Your task to perform on an android device: Go to ESPN.com Image 0: 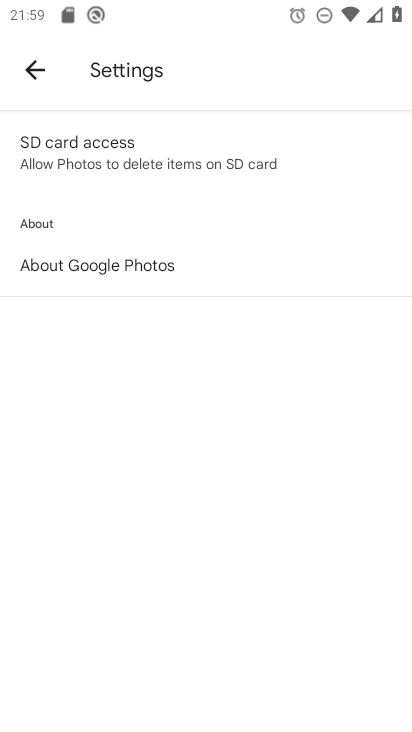
Step 0: press home button
Your task to perform on an android device: Go to ESPN.com Image 1: 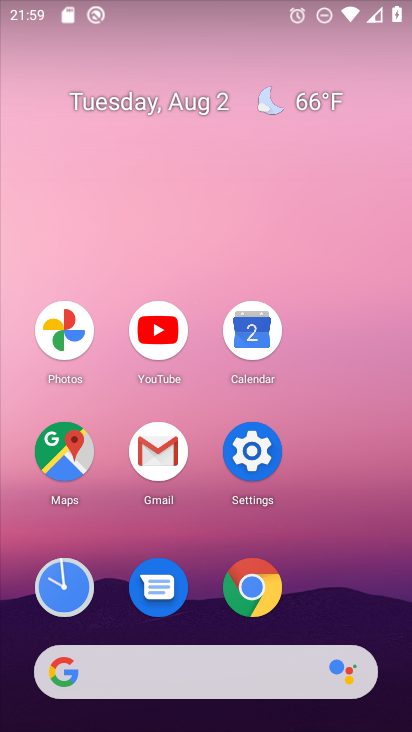
Step 1: click (254, 583)
Your task to perform on an android device: Go to ESPN.com Image 2: 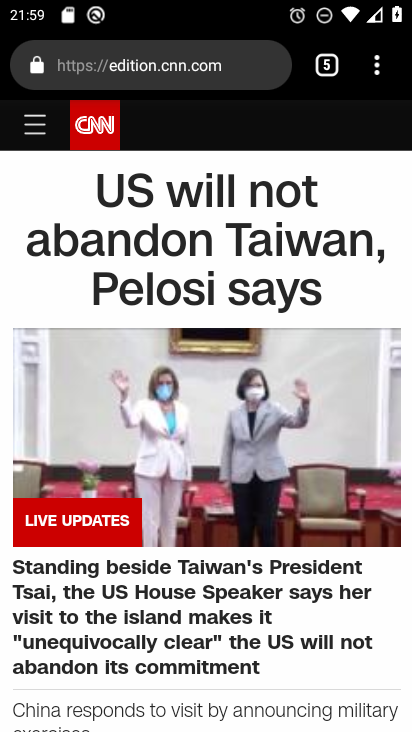
Step 2: click (382, 63)
Your task to perform on an android device: Go to ESPN.com Image 3: 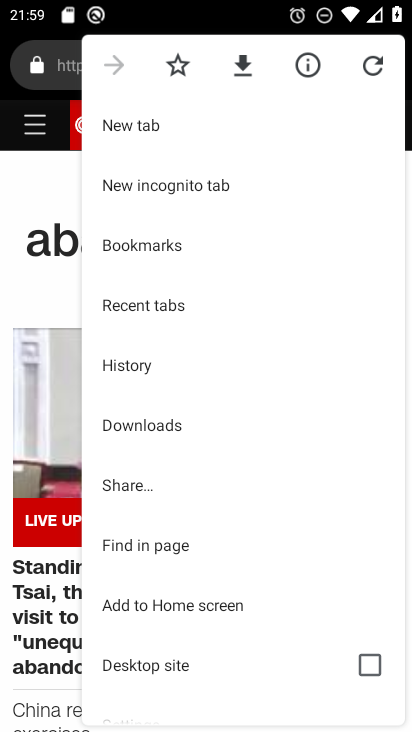
Step 3: click (151, 123)
Your task to perform on an android device: Go to ESPN.com Image 4: 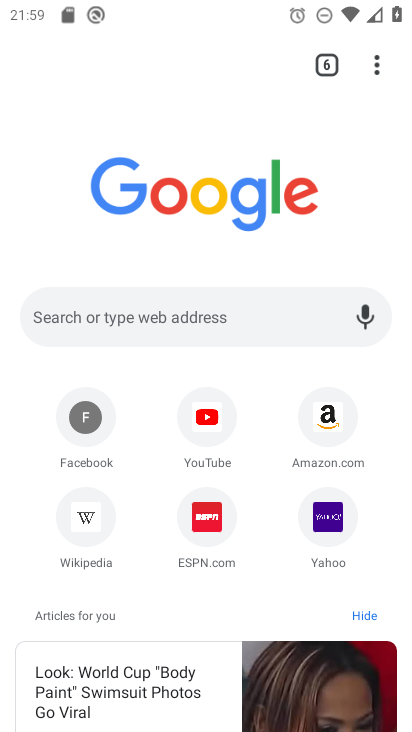
Step 4: click (199, 513)
Your task to perform on an android device: Go to ESPN.com Image 5: 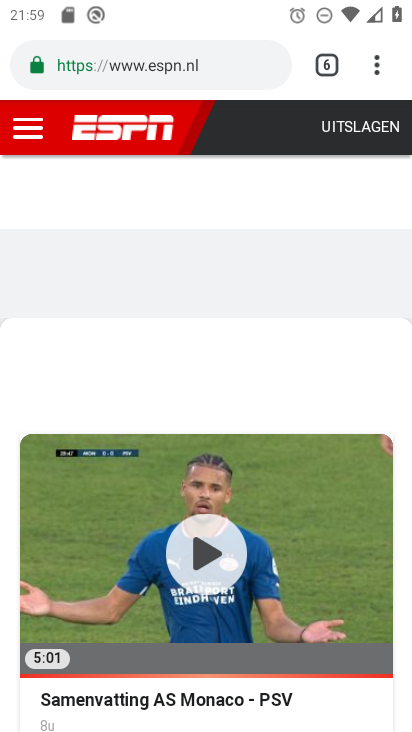
Step 5: task complete